Your task to perform on an android device: snooze an email in the gmail app Image 0: 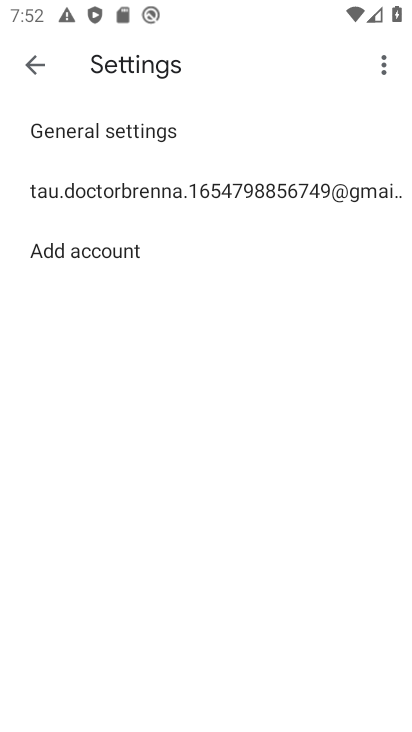
Step 0: press home button
Your task to perform on an android device: snooze an email in the gmail app Image 1: 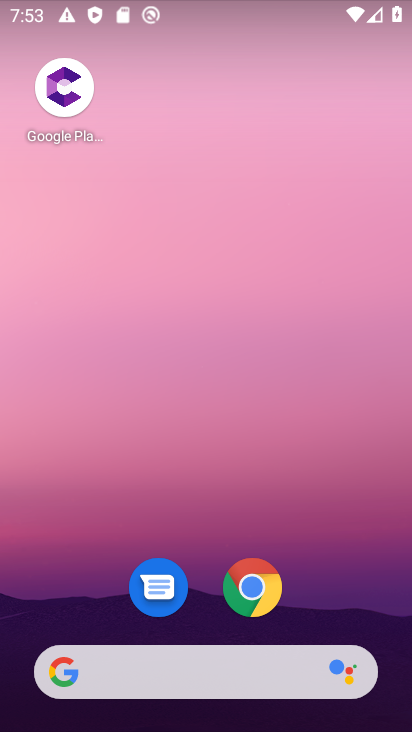
Step 1: drag from (17, 719) to (272, 245)
Your task to perform on an android device: snooze an email in the gmail app Image 2: 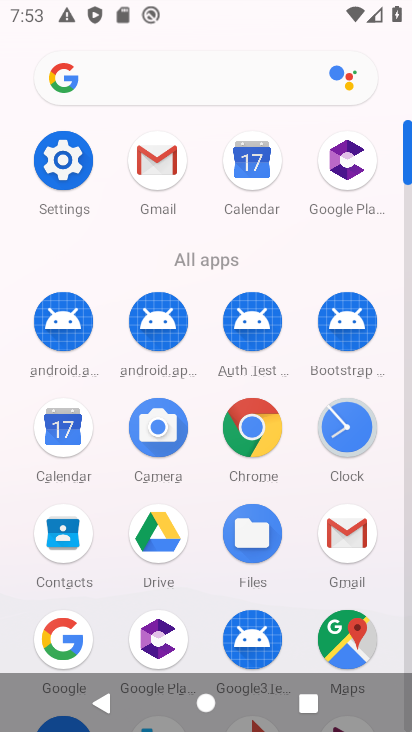
Step 2: click (161, 158)
Your task to perform on an android device: snooze an email in the gmail app Image 3: 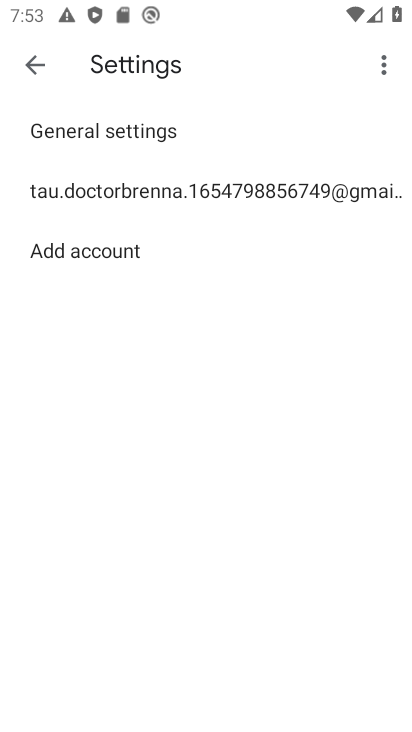
Step 3: click (38, 60)
Your task to perform on an android device: snooze an email in the gmail app Image 4: 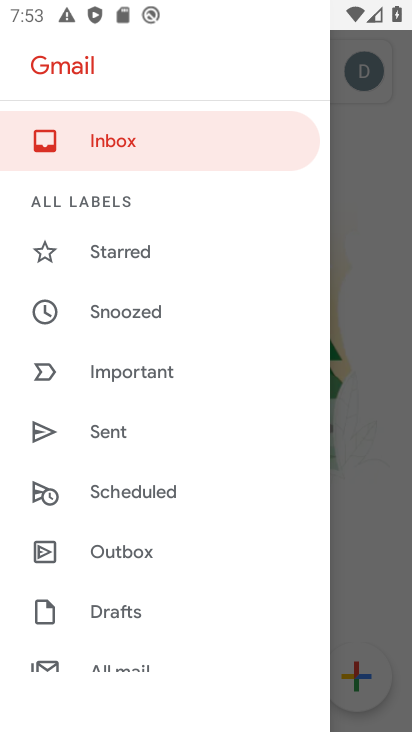
Step 4: click (152, 317)
Your task to perform on an android device: snooze an email in the gmail app Image 5: 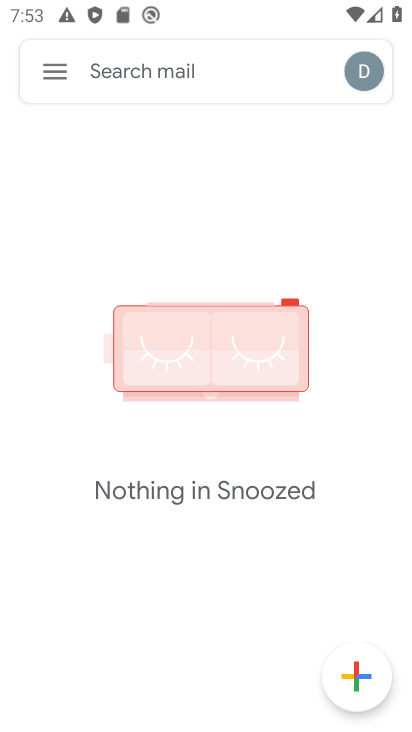
Step 5: task complete